Your task to perform on an android device: delete location history Image 0: 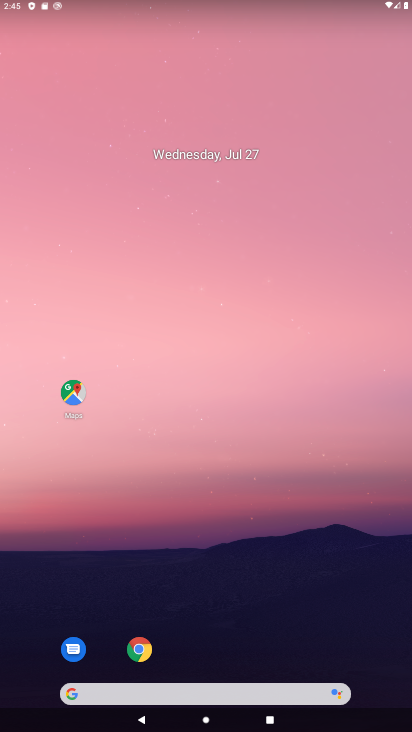
Step 0: drag from (293, 640) to (275, 83)
Your task to perform on an android device: delete location history Image 1: 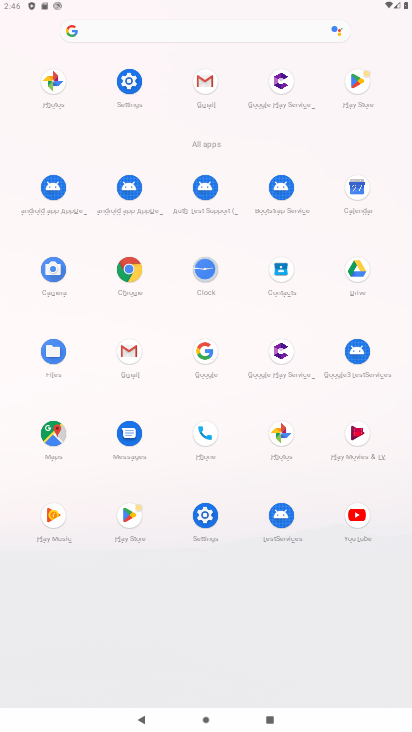
Step 1: click (52, 435)
Your task to perform on an android device: delete location history Image 2: 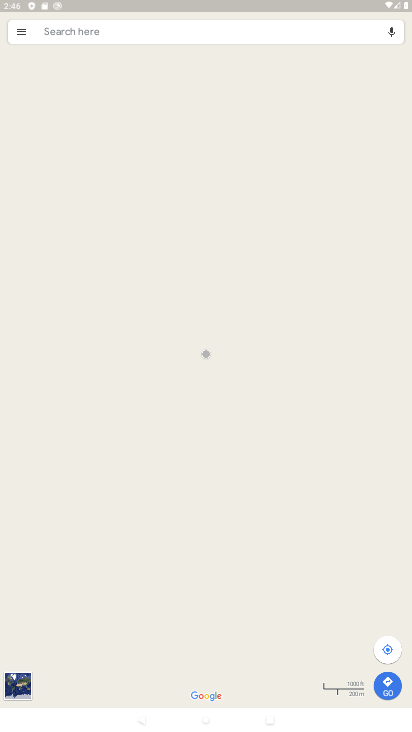
Step 2: click (23, 30)
Your task to perform on an android device: delete location history Image 3: 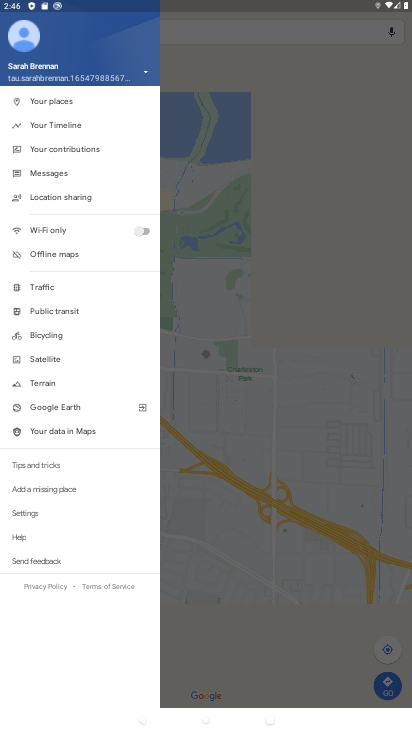
Step 3: click (57, 124)
Your task to perform on an android device: delete location history Image 4: 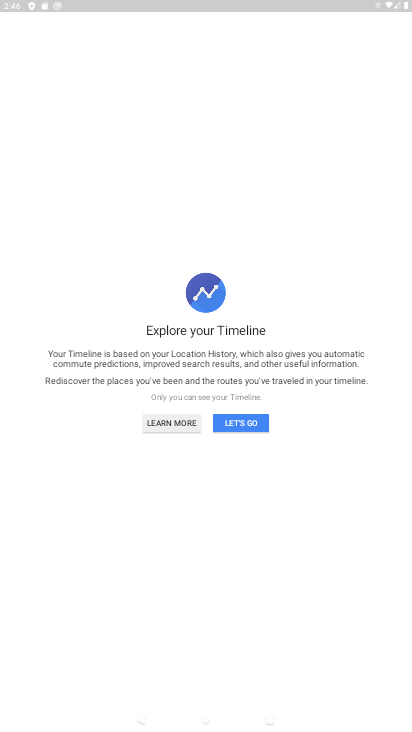
Step 4: click (247, 414)
Your task to perform on an android device: delete location history Image 5: 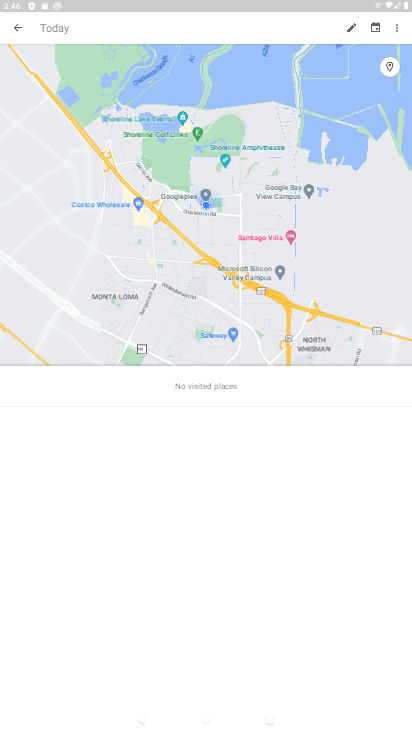
Step 5: click (397, 27)
Your task to perform on an android device: delete location history Image 6: 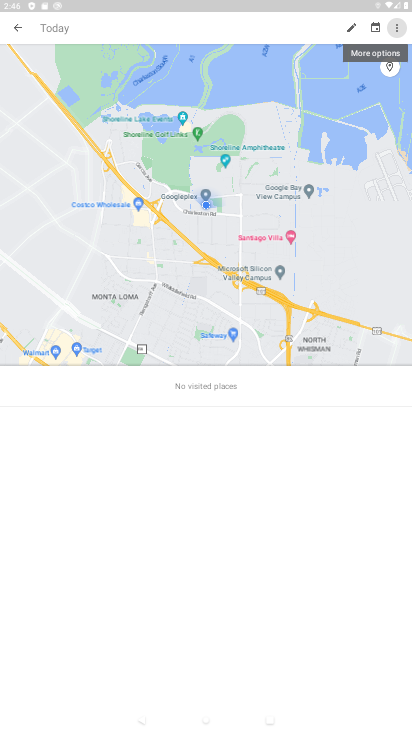
Step 6: click (397, 27)
Your task to perform on an android device: delete location history Image 7: 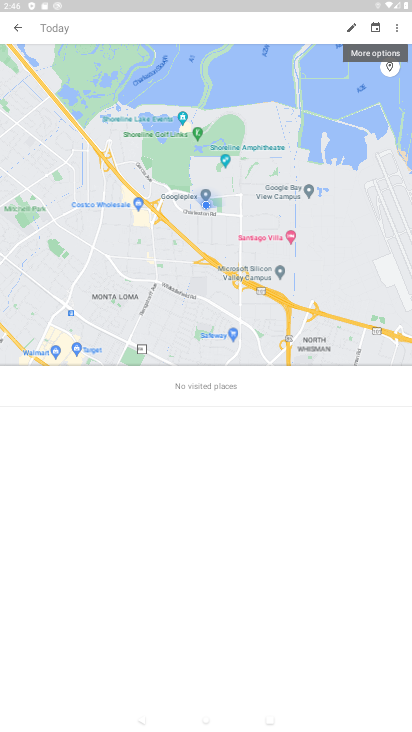
Step 7: click (401, 22)
Your task to perform on an android device: delete location history Image 8: 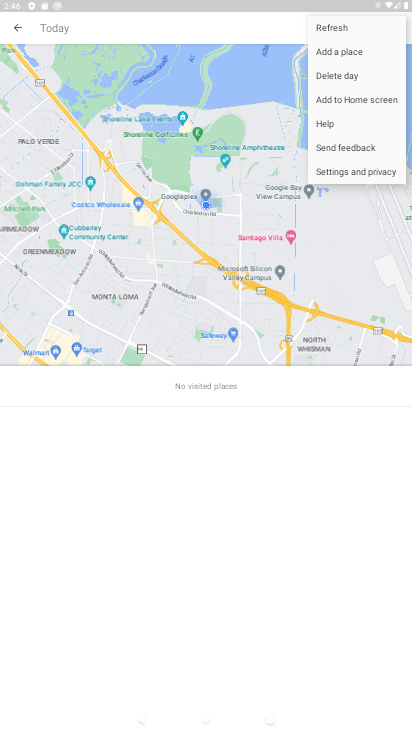
Step 8: click (343, 169)
Your task to perform on an android device: delete location history Image 9: 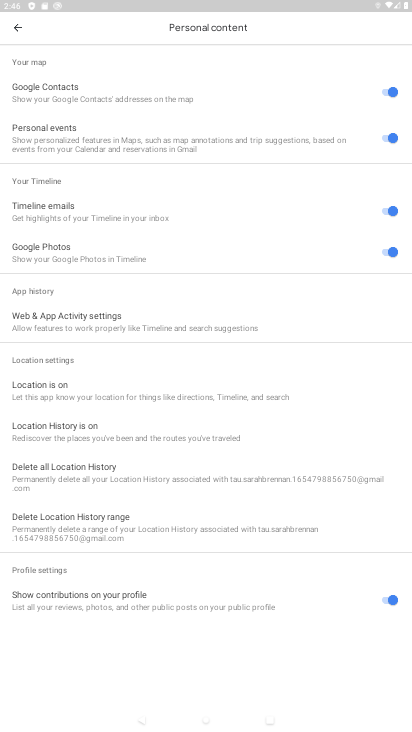
Step 9: click (49, 469)
Your task to perform on an android device: delete location history Image 10: 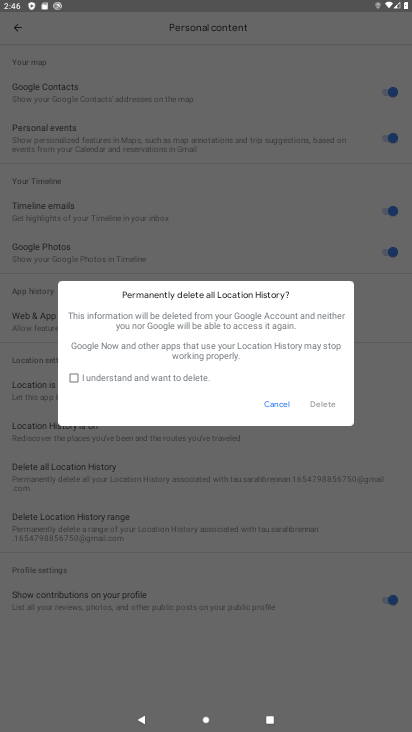
Step 10: click (77, 375)
Your task to perform on an android device: delete location history Image 11: 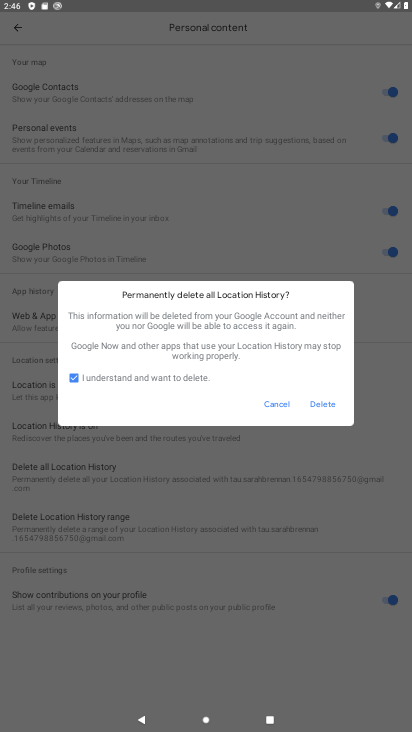
Step 11: click (321, 398)
Your task to perform on an android device: delete location history Image 12: 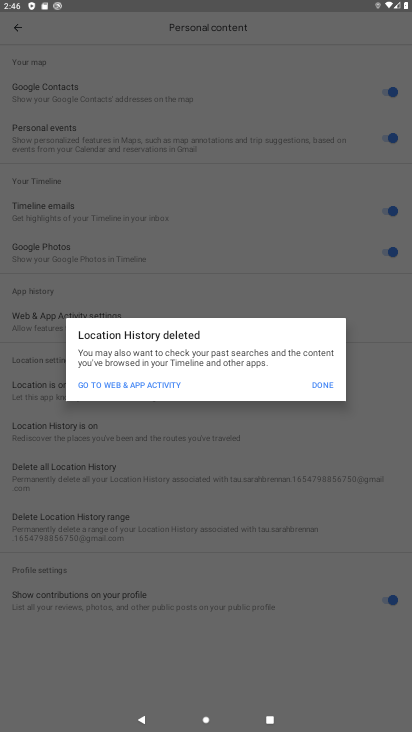
Step 12: click (323, 374)
Your task to perform on an android device: delete location history Image 13: 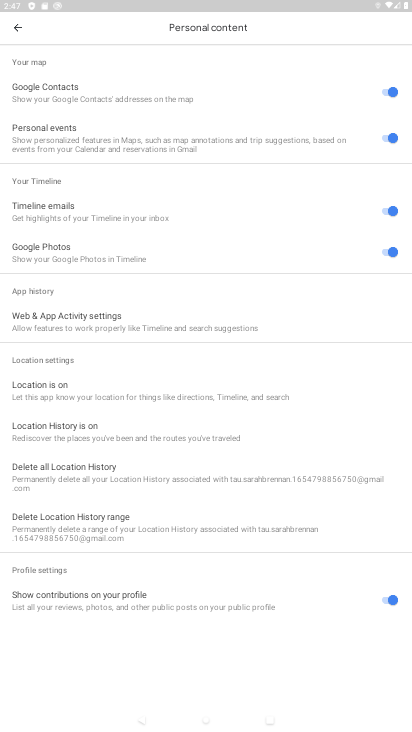
Step 13: task complete